Your task to perform on an android device: toggle wifi Image 0: 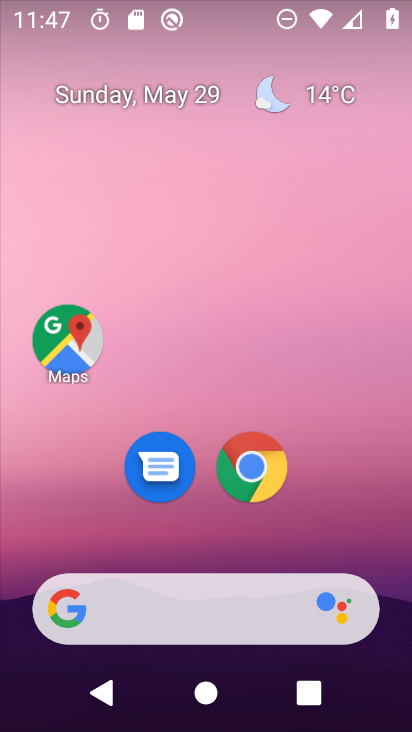
Step 0: drag from (207, 538) to (210, 115)
Your task to perform on an android device: toggle wifi Image 1: 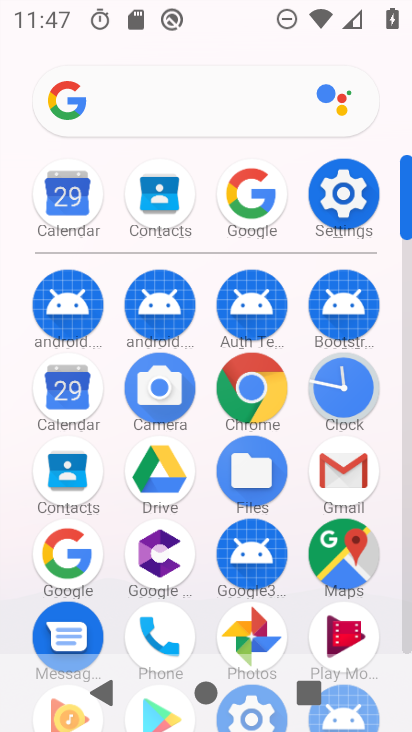
Step 1: click (341, 203)
Your task to perform on an android device: toggle wifi Image 2: 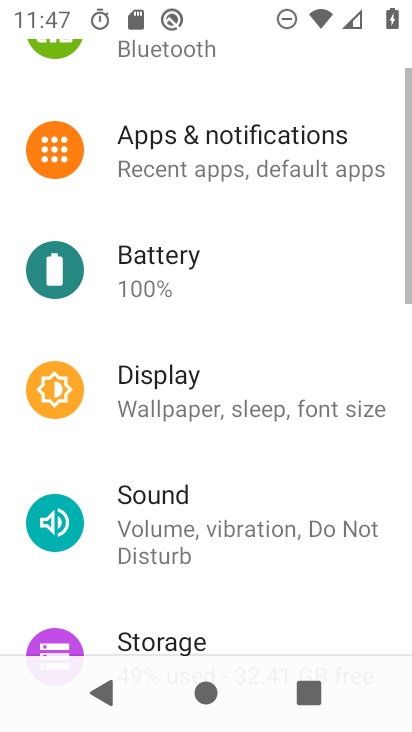
Step 2: drag from (228, 158) to (232, 577)
Your task to perform on an android device: toggle wifi Image 3: 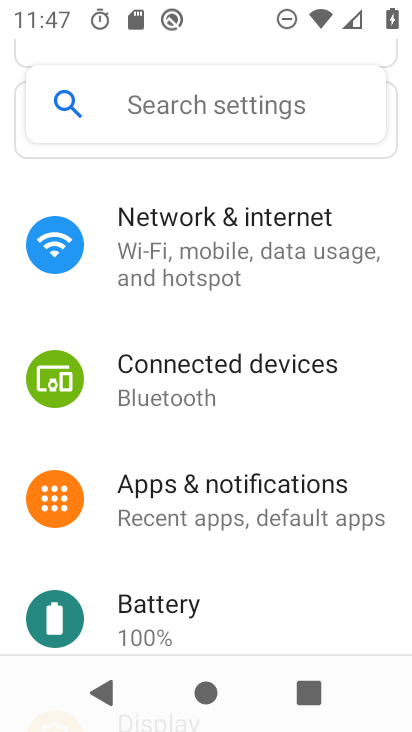
Step 3: drag from (190, 189) to (202, 309)
Your task to perform on an android device: toggle wifi Image 4: 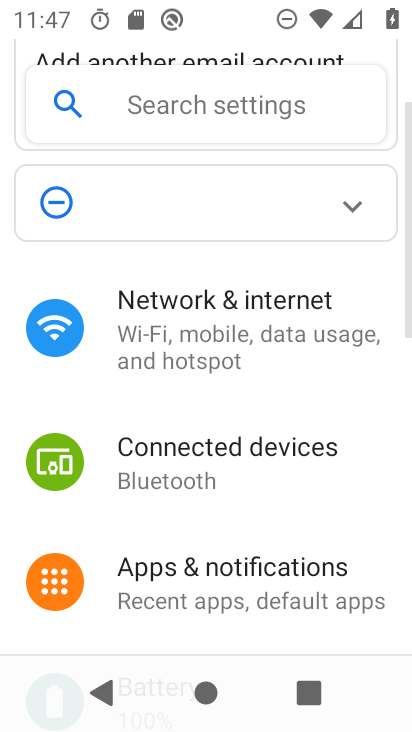
Step 4: click (201, 309)
Your task to perform on an android device: toggle wifi Image 5: 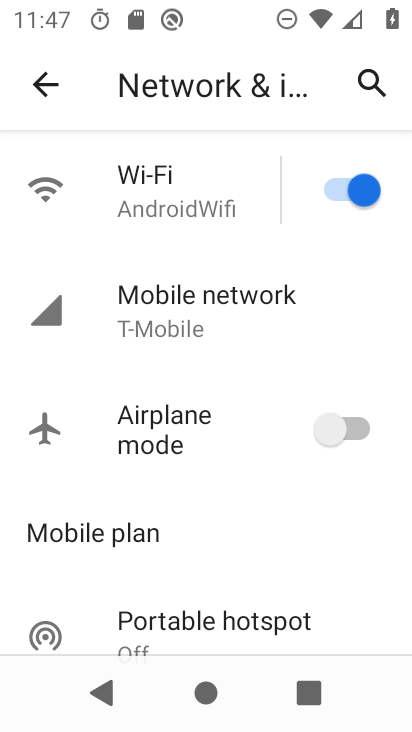
Step 5: click (329, 191)
Your task to perform on an android device: toggle wifi Image 6: 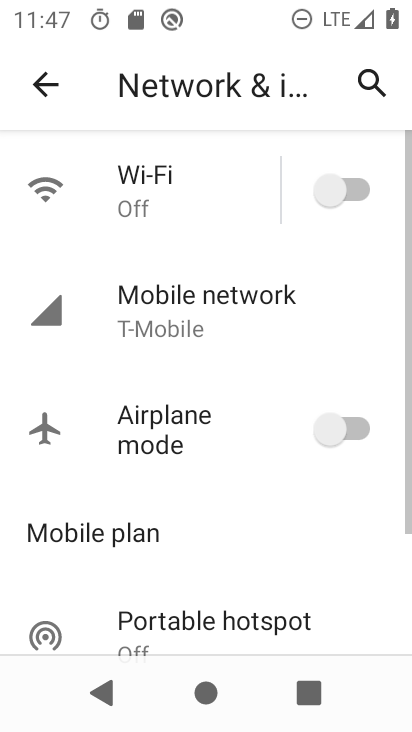
Step 6: task complete